Your task to perform on an android device: change the clock style Image 0: 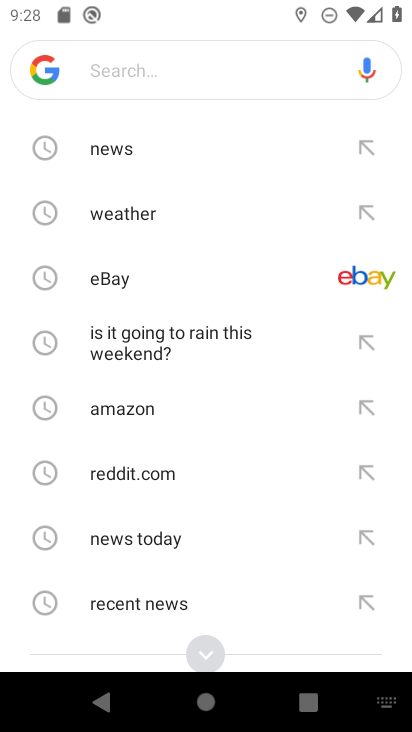
Step 0: press back button
Your task to perform on an android device: change the clock style Image 1: 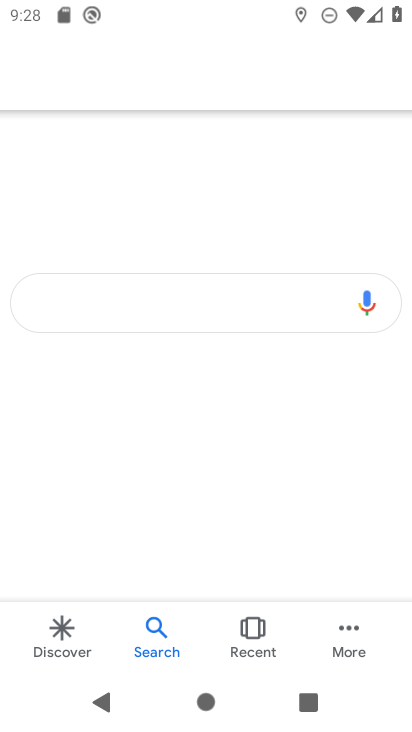
Step 1: press back button
Your task to perform on an android device: change the clock style Image 2: 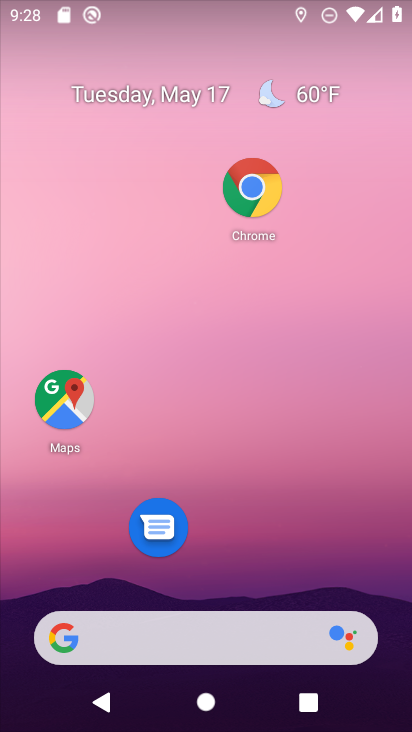
Step 2: drag from (320, 554) to (313, 0)
Your task to perform on an android device: change the clock style Image 3: 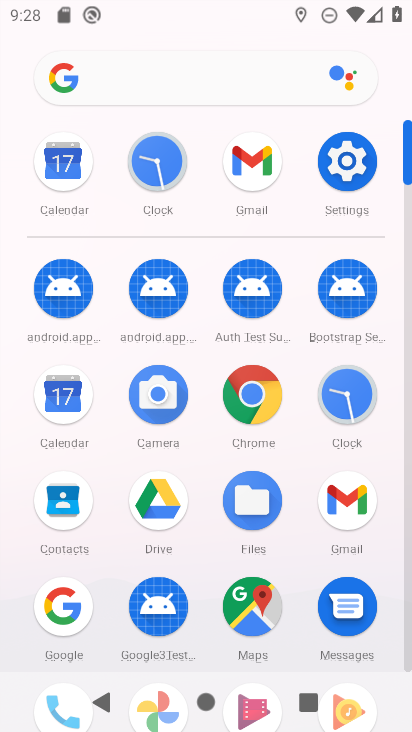
Step 3: click (343, 381)
Your task to perform on an android device: change the clock style Image 4: 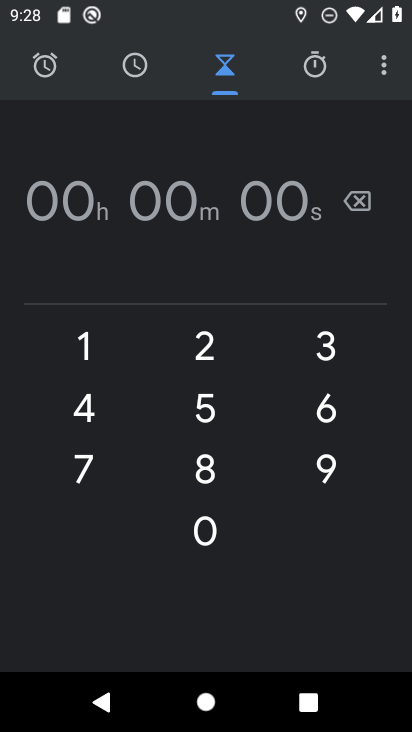
Step 4: click (392, 67)
Your task to perform on an android device: change the clock style Image 5: 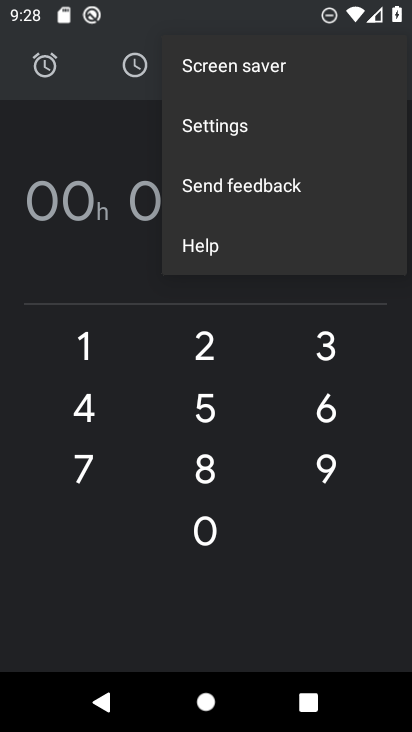
Step 5: click (267, 123)
Your task to perform on an android device: change the clock style Image 6: 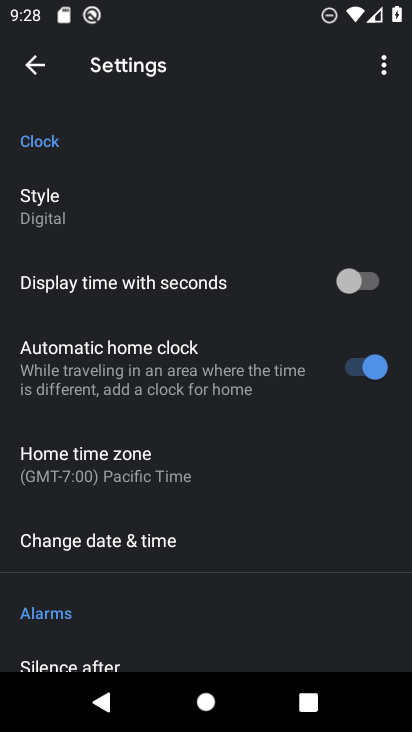
Step 6: click (219, 190)
Your task to perform on an android device: change the clock style Image 7: 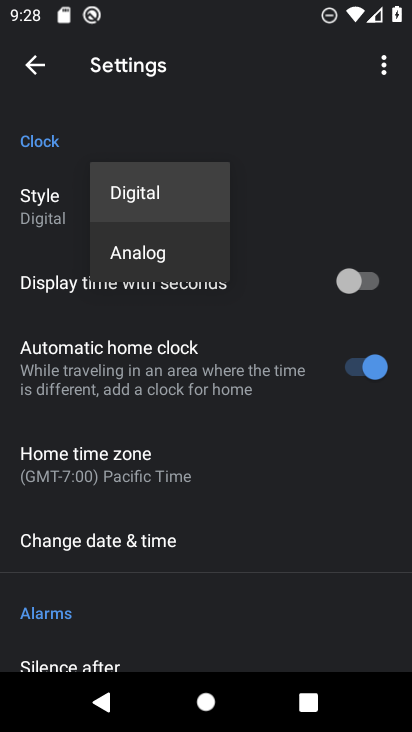
Step 7: click (150, 238)
Your task to perform on an android device: change the clock style Image 8: 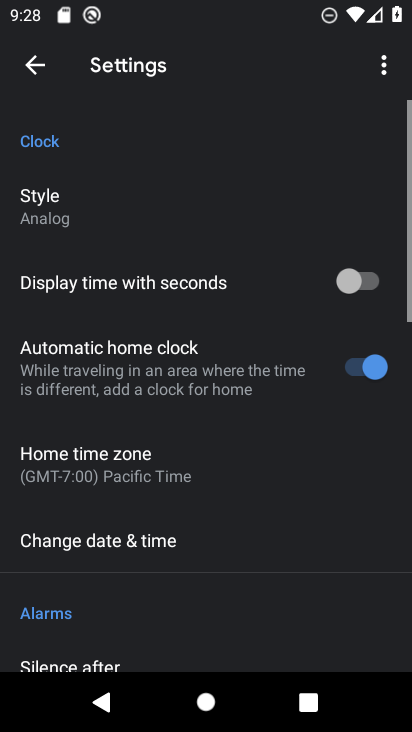
Step 8: task complete